Your task to perform on an android device: Open Youtube and go to "Your channel" Image 0: 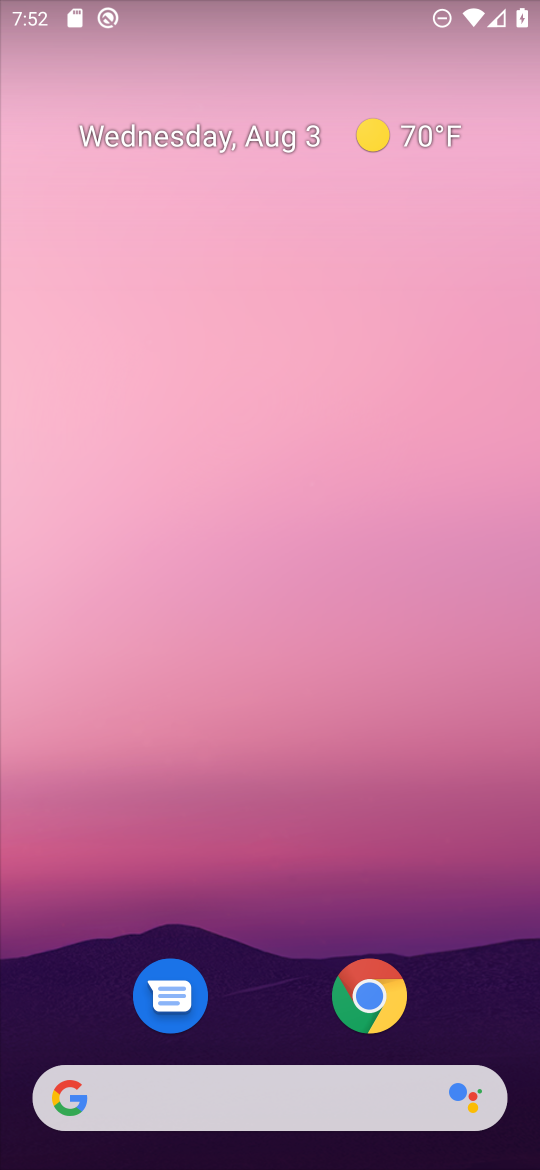
Step 0: drag from (297, 908) to (266, 0)
Your task to perform on an android device: Open Youtube and go to "Your channel" Image 1: 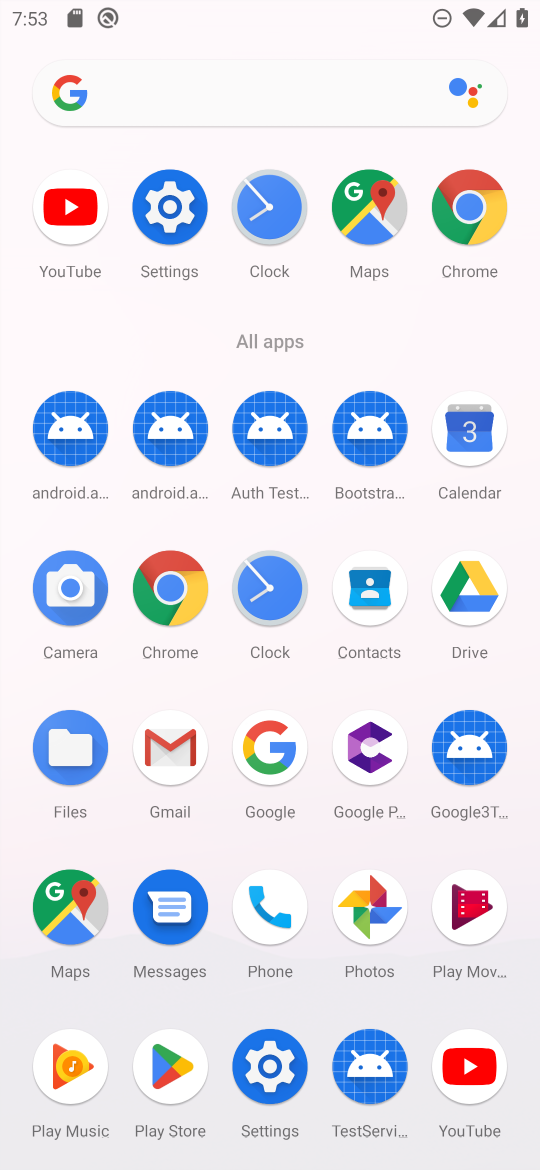
Step 1: click (77, 216)
Your task to perform on an android device: Open Youtube and go to "Your channel" Image 2: 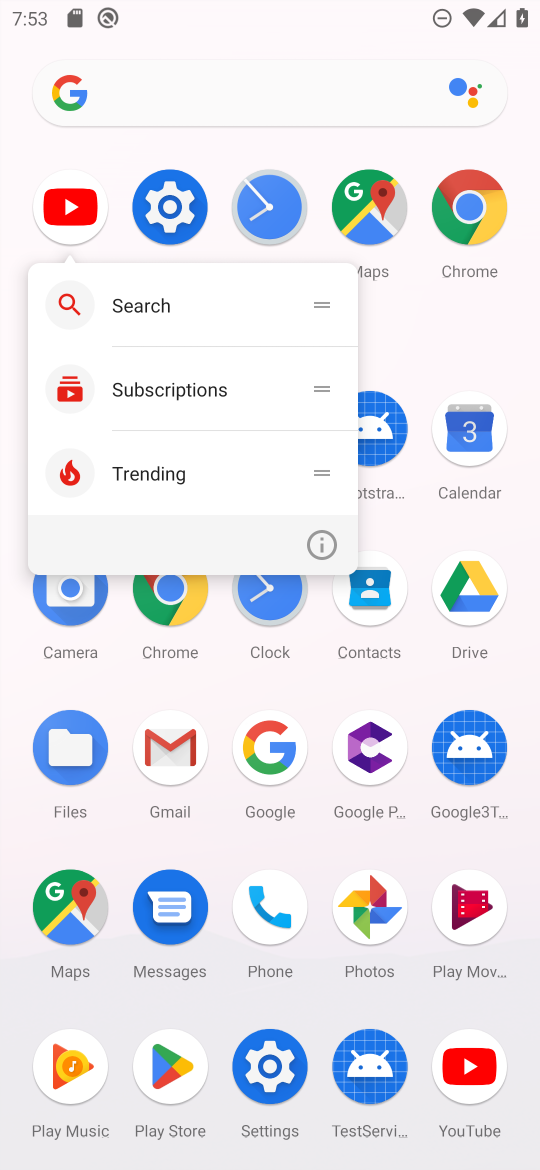
Step 2: click (77, 219)
Your task to perform on an android device: Open Youtube and go to "Your channel" Image 3: 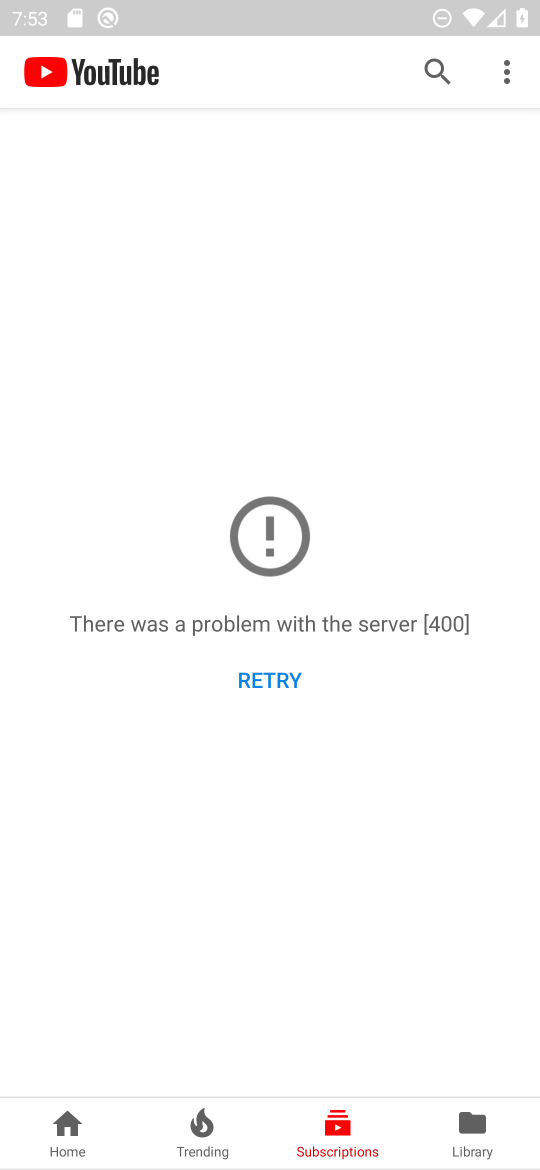
Step 3: click (505, 75)
Your task to perform on an android device: Open Youtube and go to "Your channel" Image 4: 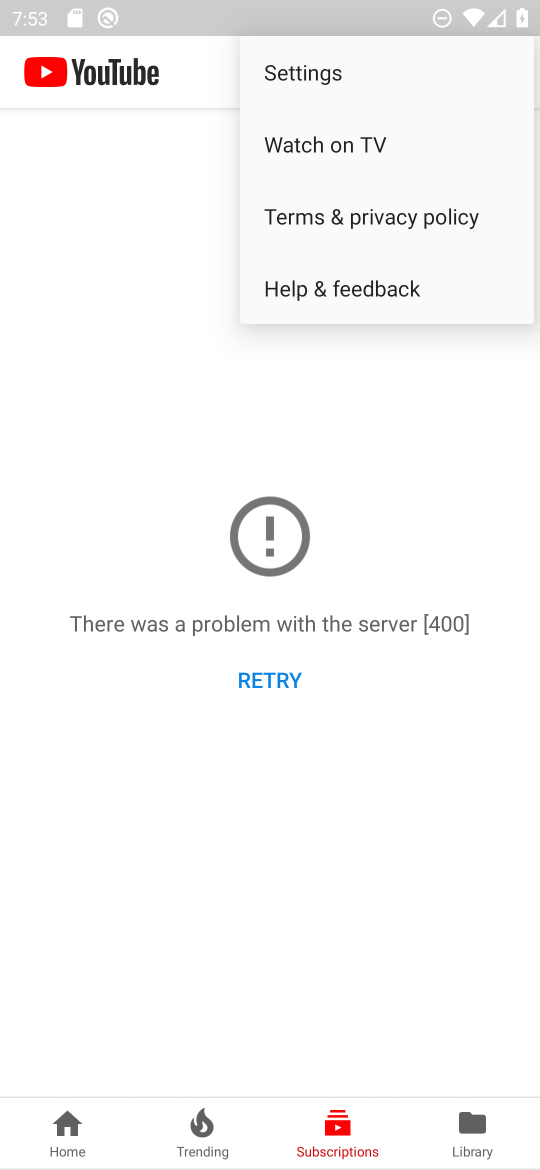
Step 4: click (332, 381)
Your task to perform on an android device: Open Youtube and go to "Your channel" Image 5: 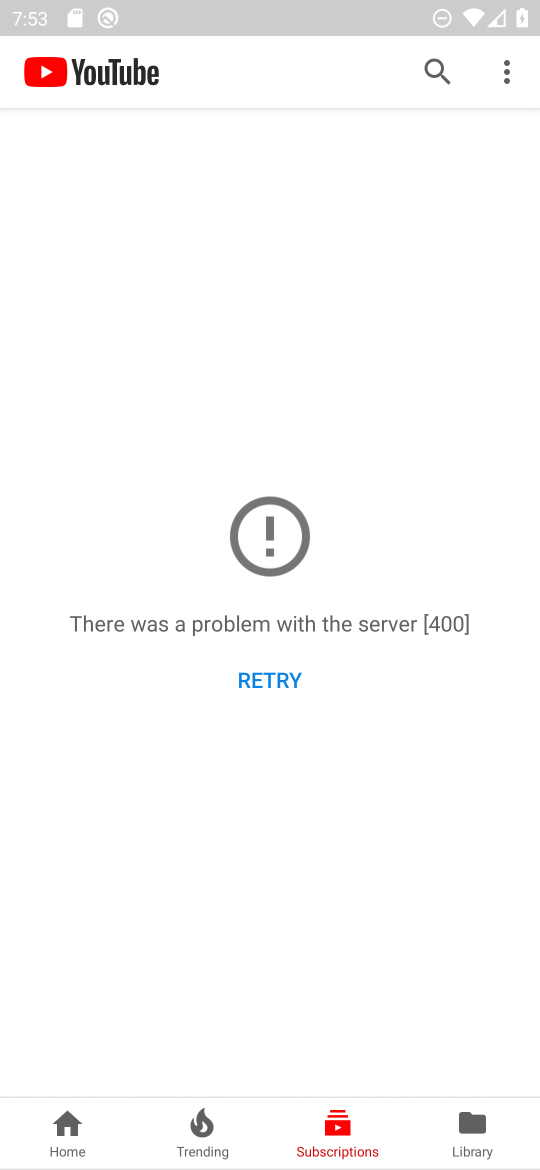
Step 5: click (51, 72)
Your task to perform on an android device: Open Youtube and go to "Your channel" Image 6: 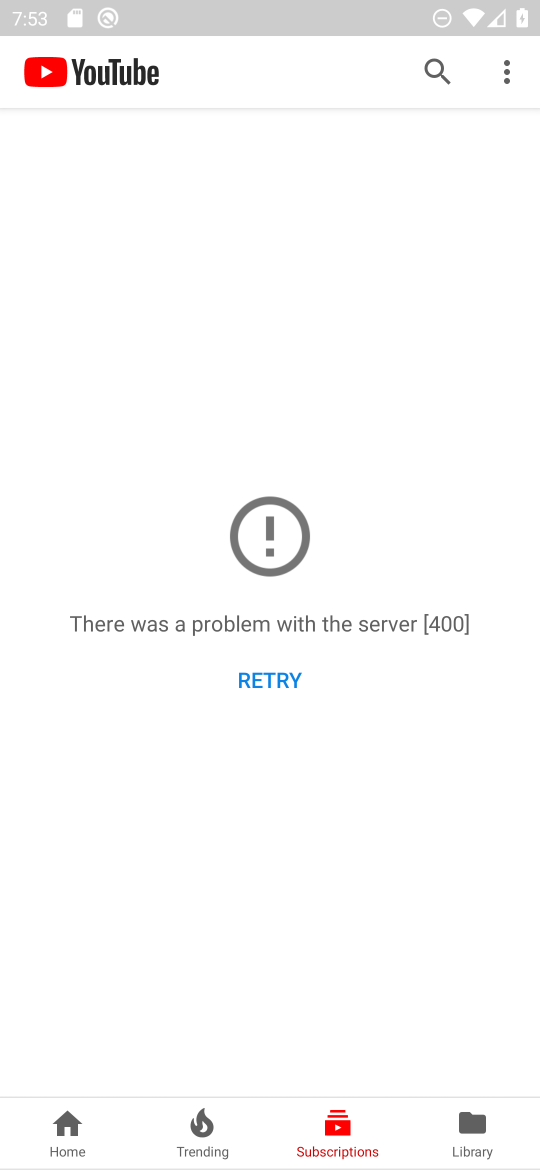
Step 6: task complete